Your task to perform on an android device: Open Chrome and go to settings Image 0: 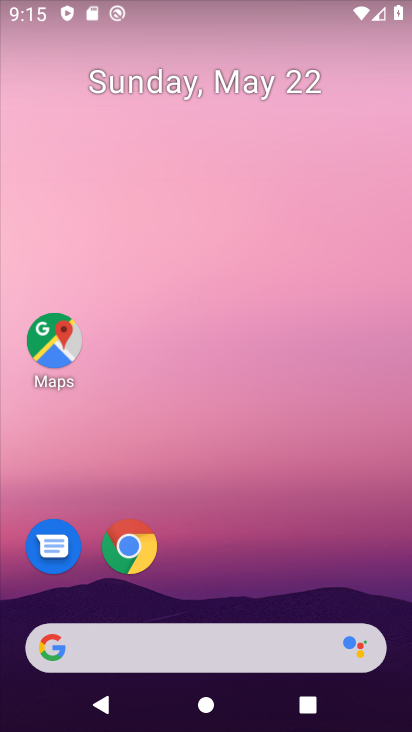
Step 0: click (136, 555)
Your task to perform on an android device: Open Chrome and go to settings Image 1: 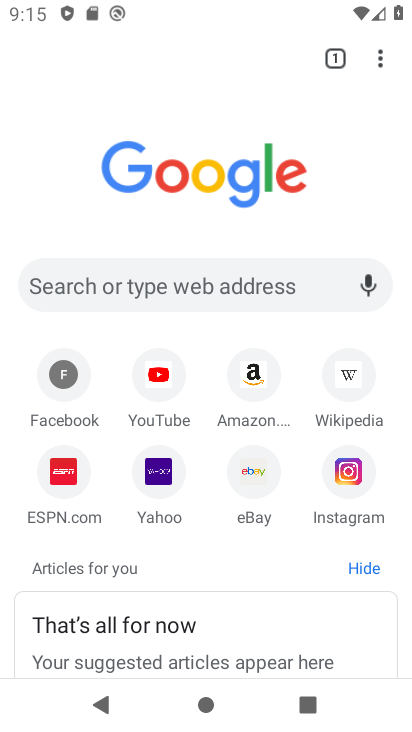
Step 1: click (391, 51)
Your task to perform on an android device: Open Chrome and go to settings Image 2: 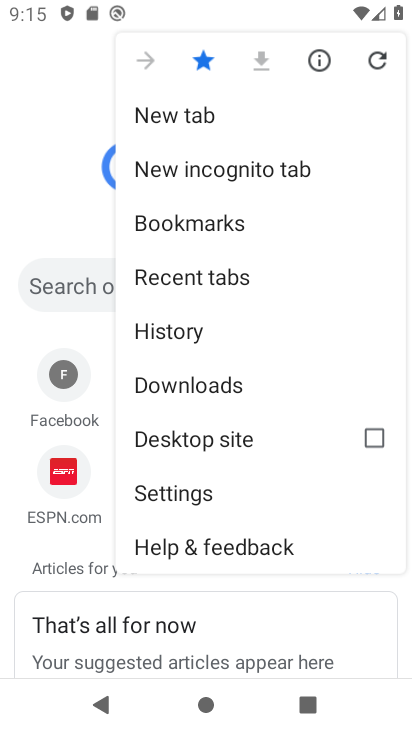
Step 2: click (185, 500)
Your task to perform on an android device: Open Chrome and go to settings Image 3: 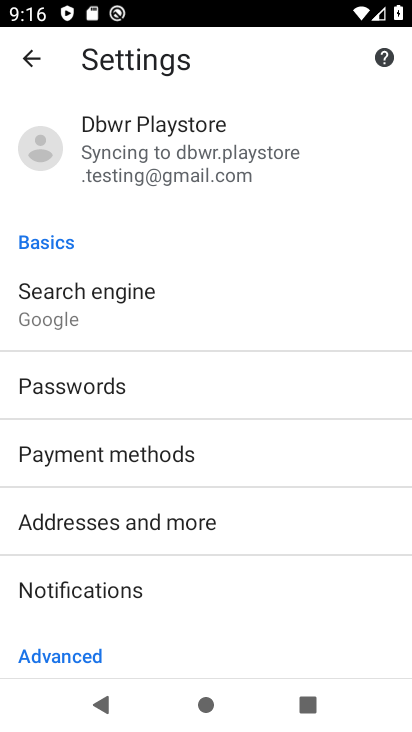
Step 3: task complete